Your task to perform on an android device: Set the phone to "Do not disturb". Image 0: 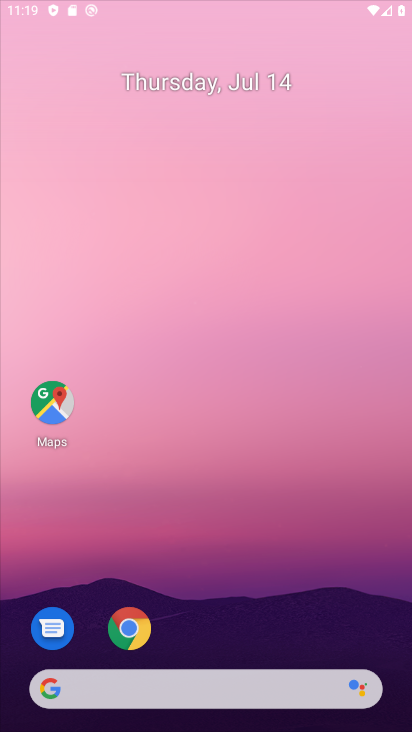
Step 0: drag from (335, 530) to (411, 123)
Your task to perform on an android device: Set the phone to "Do not disturb". Image 1: 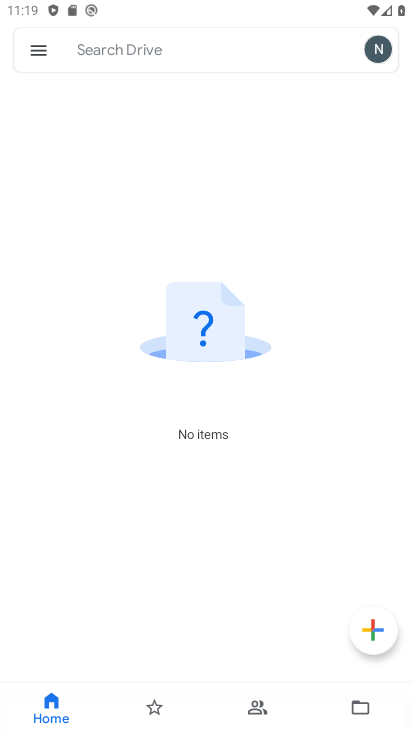
Step 1: press home button
Your task to perform on an android device: Set the phone to "Do not disturb". Image 2: 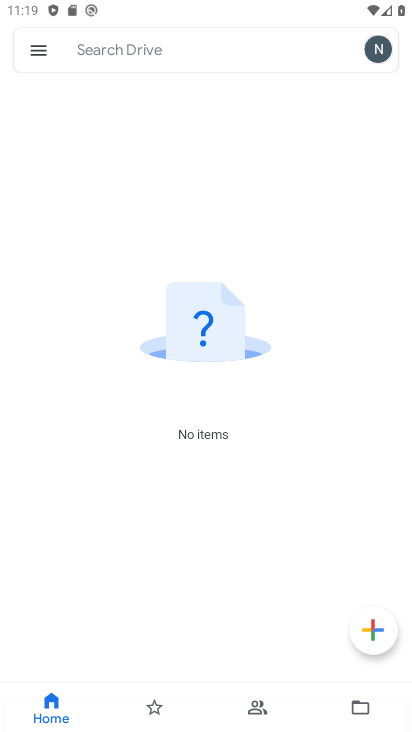
Step 2: drag from (411, 123) to (407, 408)
Your task to perform on an android device: Set the phone to "Do not disturb". Image 3: 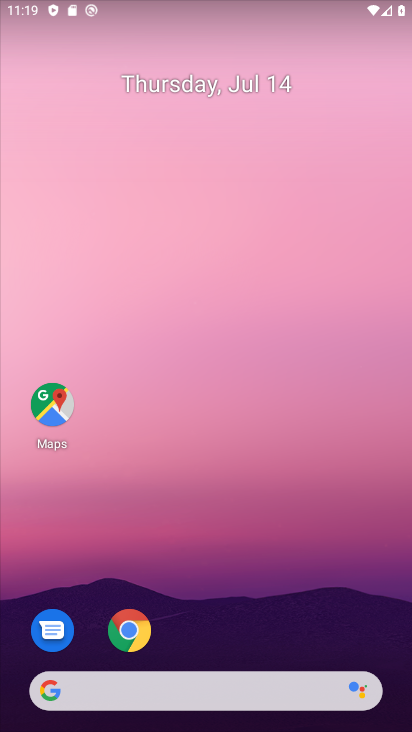
Step 3: drag from (254, 623) to (235, 3)
Your task to perform on an android device: Set the phone to "Do not disturb". Image 4: 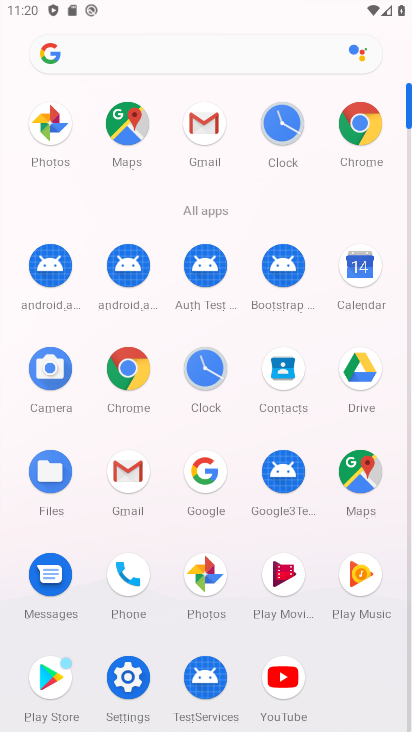
Step 4: click (109, 682)
Your task to perform on an android device: Set the phone to "Do not disturb". Image 5: 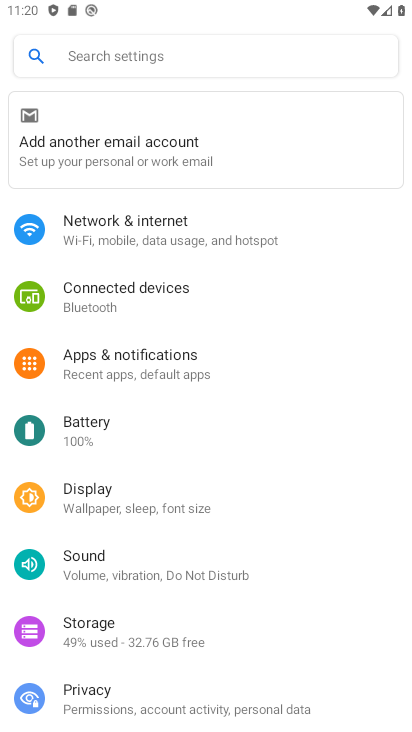
Step 5: click (166, 563)
Your task to perform on an android device: Set the phone to "Do not disturb". Image 6: 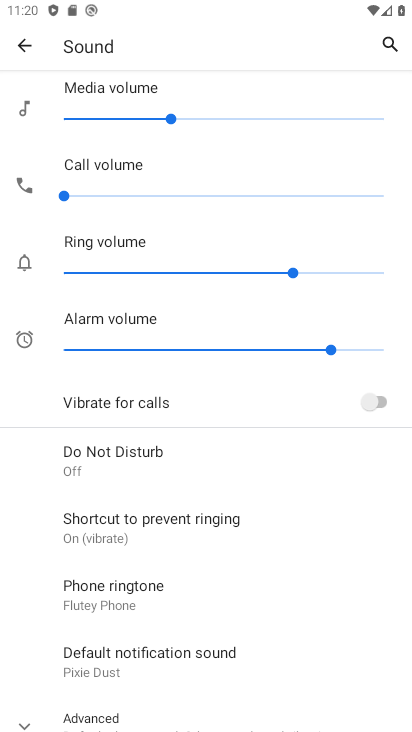
Step 6: click (101, 444)
Your task to perform on an android device: Set the phone to "Do not disturb". Image 7: 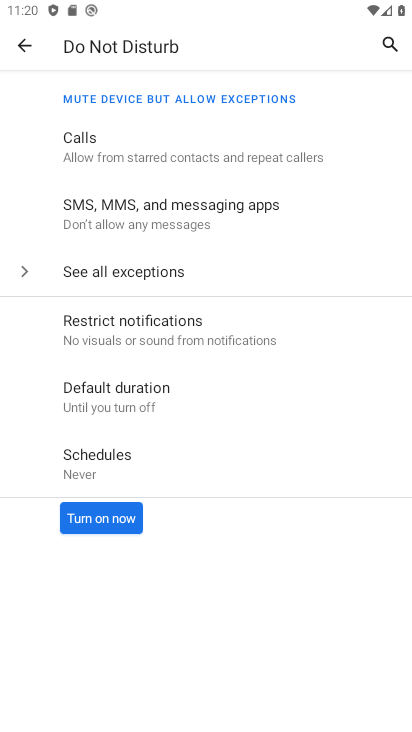
Step 7: click (123, 521)
Your task to perform on an android device: Set the phone to "Do not disturb". Image 8: 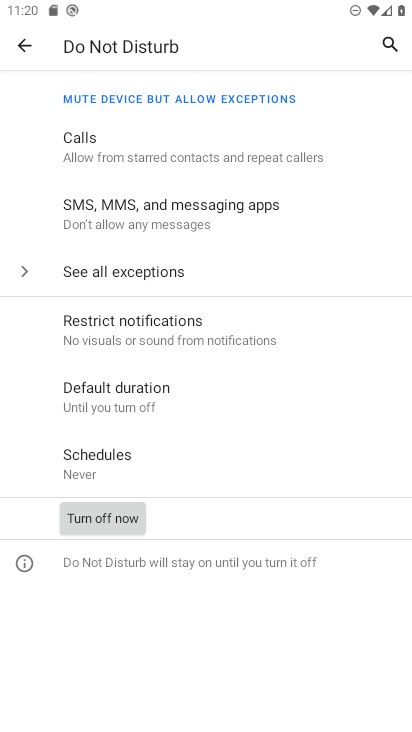
Step 8: task complete